Your task to perform on an android device: Search for sushi restaurants on Maps Image 0: 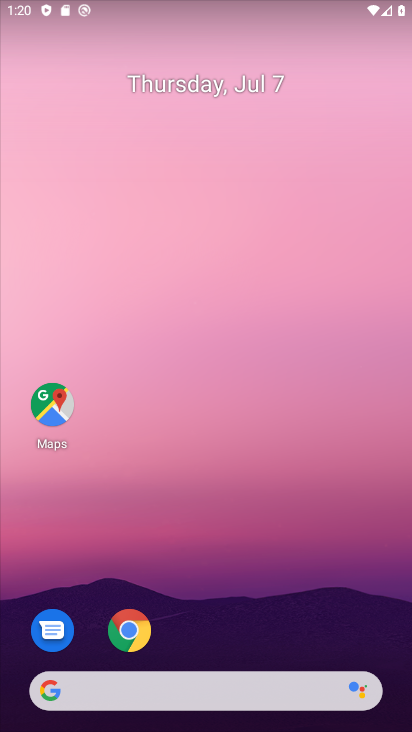
Step 0: click (45, 389)
Your task to perform on an android device: Search for sushi restaurants on Maps Image 1: 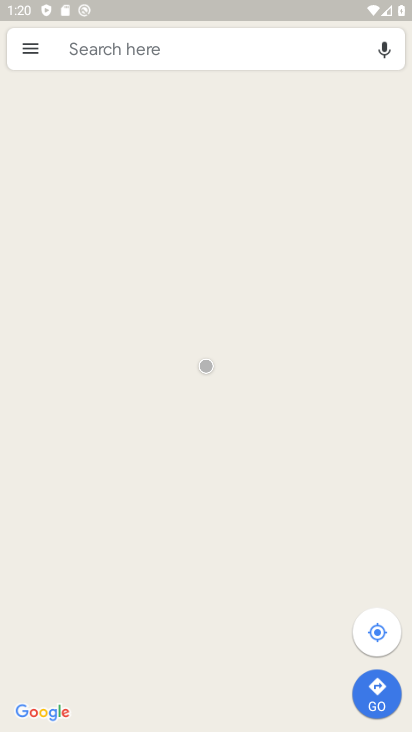
Step 1: click (212, 50)
Your task to perform on an android device: Search for sushi restaurants on Maps Image 2: 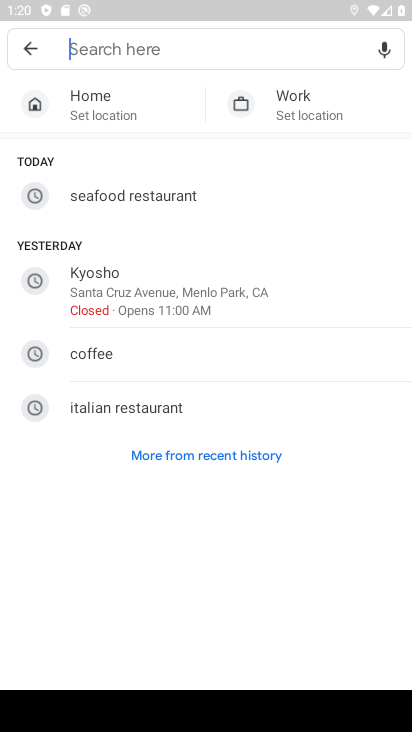
Step 2: type "sushi restaurants"
Your task to perform on an android device: Search for sushi restaurants on Maps Image 3: 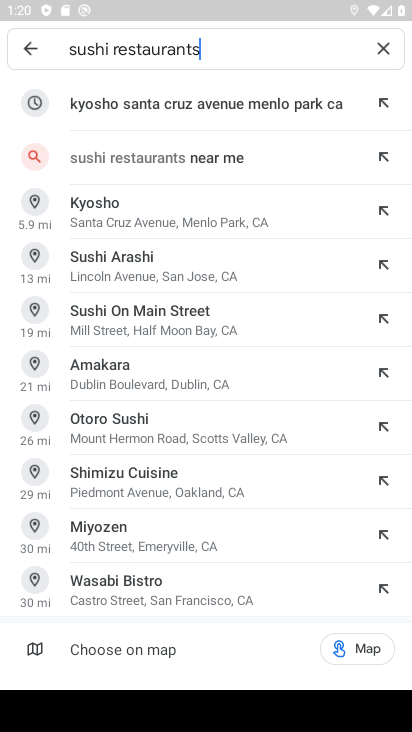
Step 3: click (185, 156)
Your task to perform on an android device: Search for sushi restaurants on Maps Image 4: 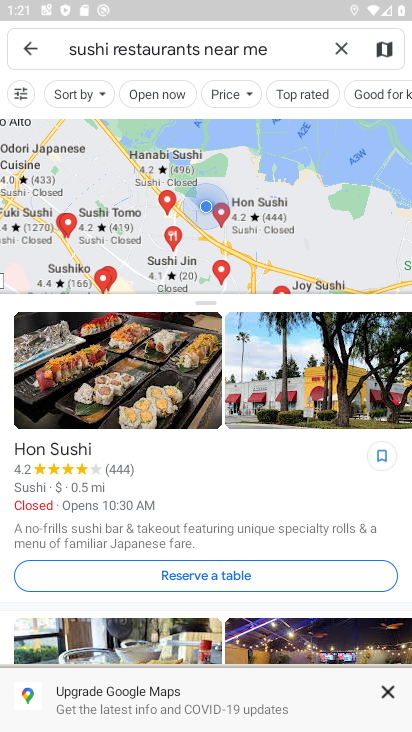
Step 4: task complete